Your task to perform on an android device: Open battery settings Image 0: 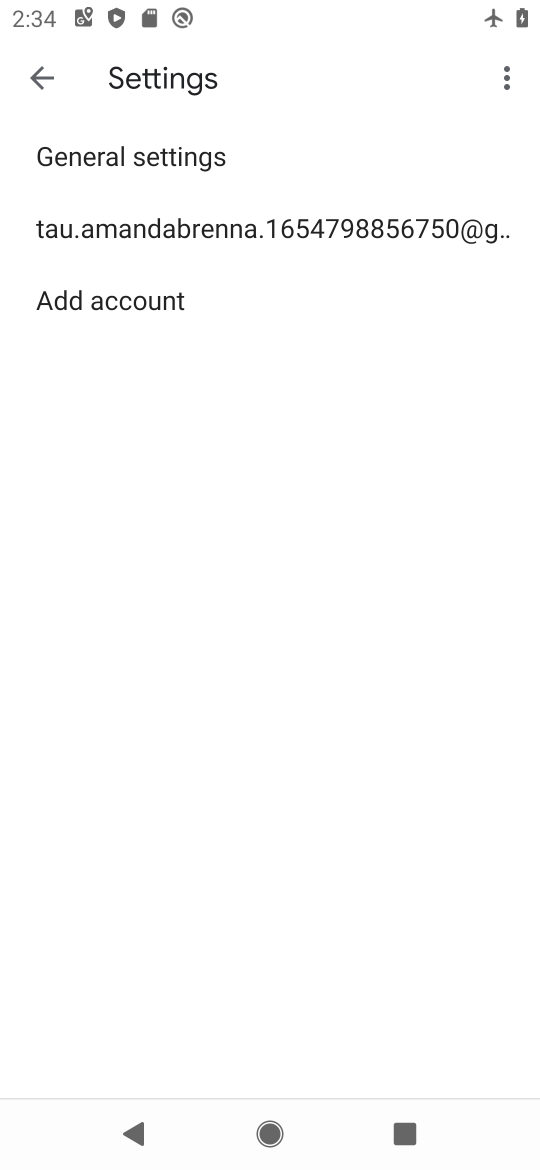
Step 0: press home button
Your task to perform on an android device: Open battery settings Image 1: 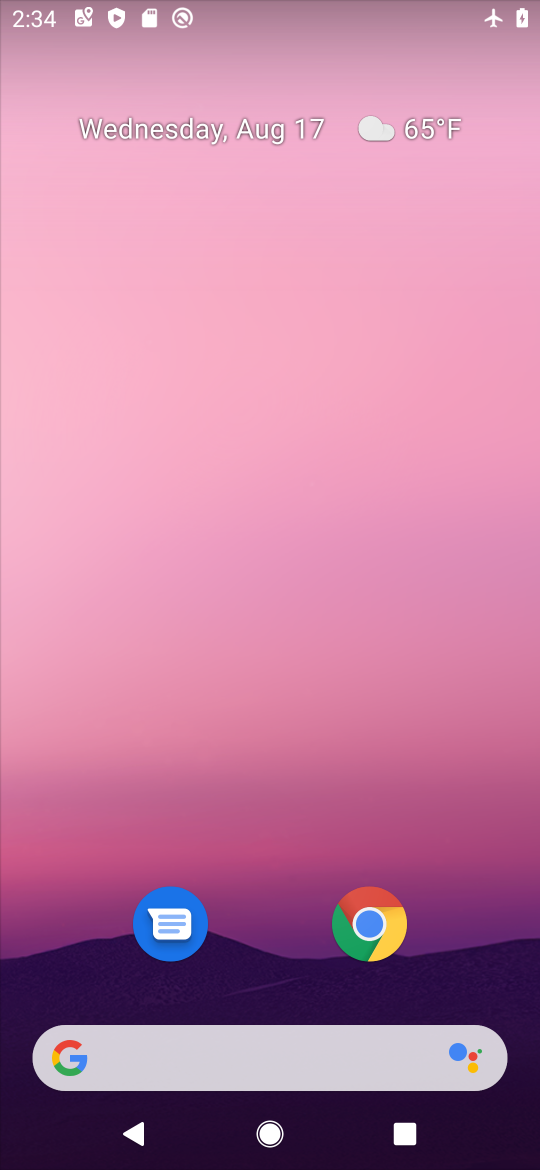
Step 1: drag from (225, 1053) to (252, 313)
Your task to perform on an android device: Open battery settings Image 2: 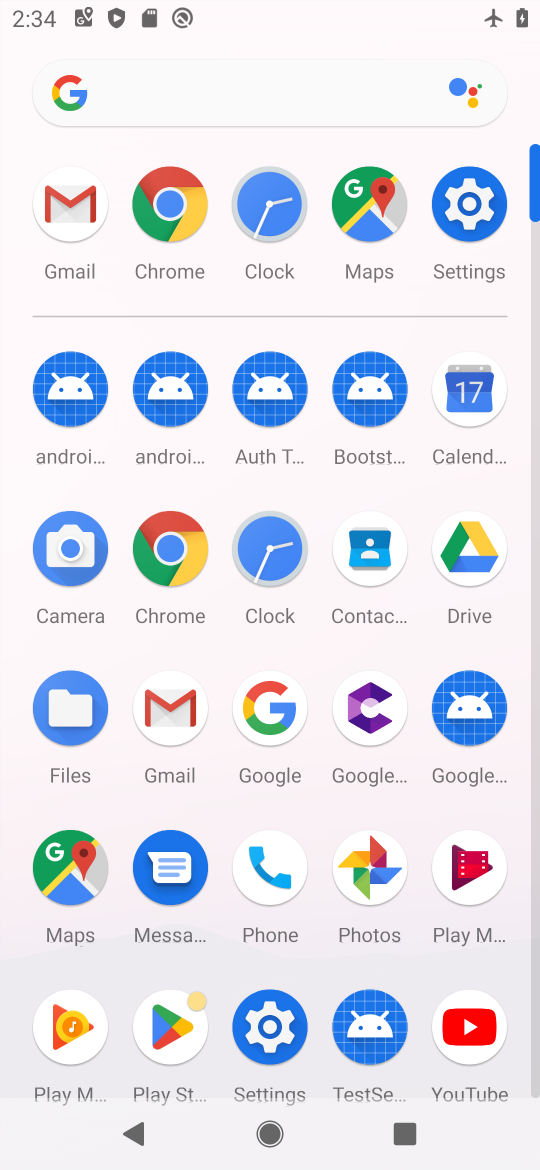
Step 2: click (472, 204)
Your task to perform on an android device: Open battery settings Image 3: 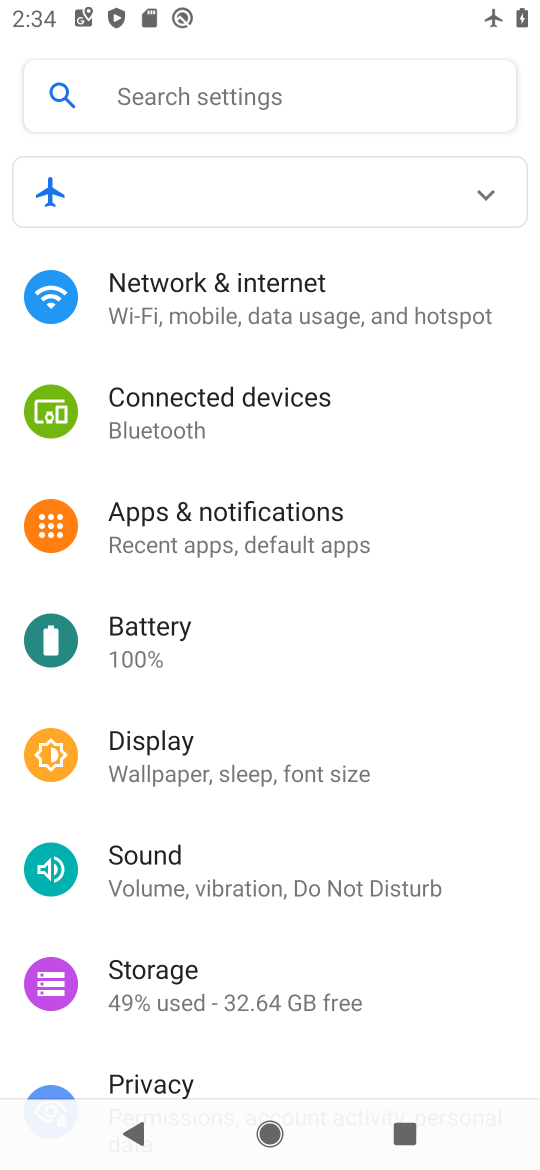
Step 3: click (157, 639)
Your task to perform on an android device: Open battery settings Image 4: 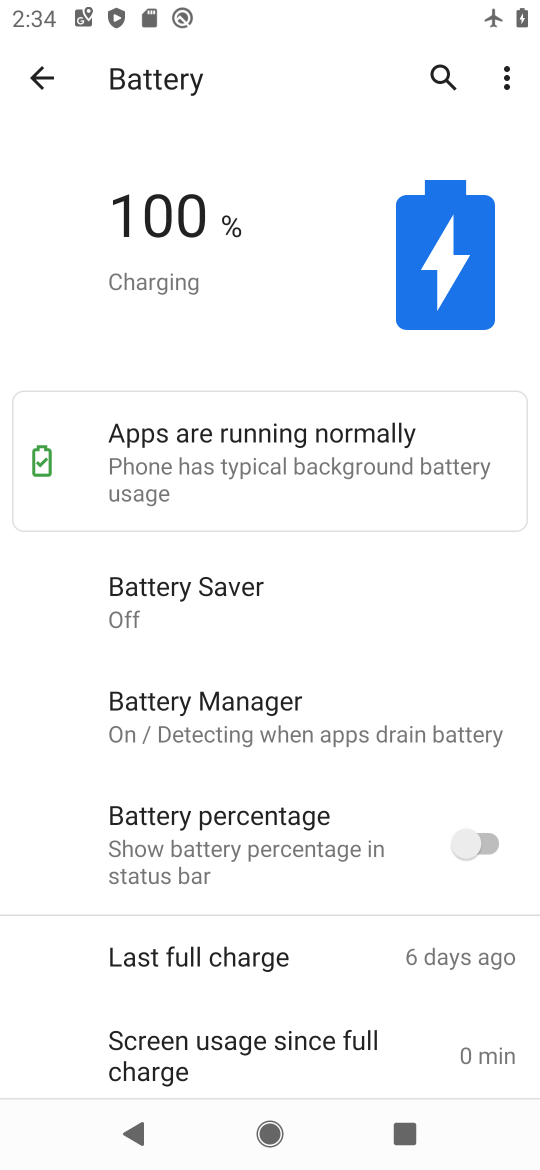
Step 4: task complete